Your task to perform on an android device: turn on the 12-hour format for clock Image 0: 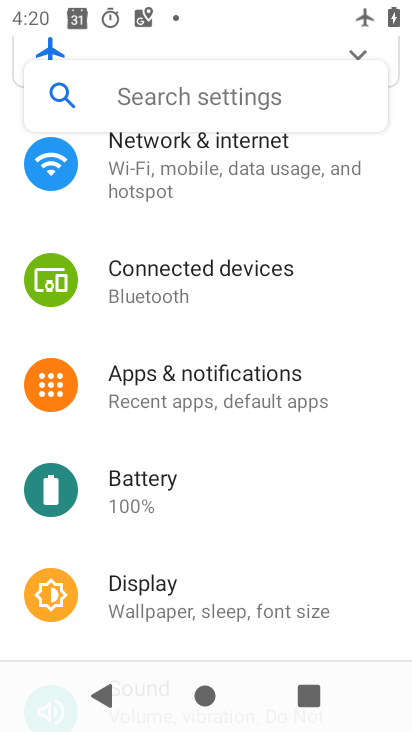
Step 0: press back button
Your task to perform on an android device: turn on the 12-hour format for clock Image 1: 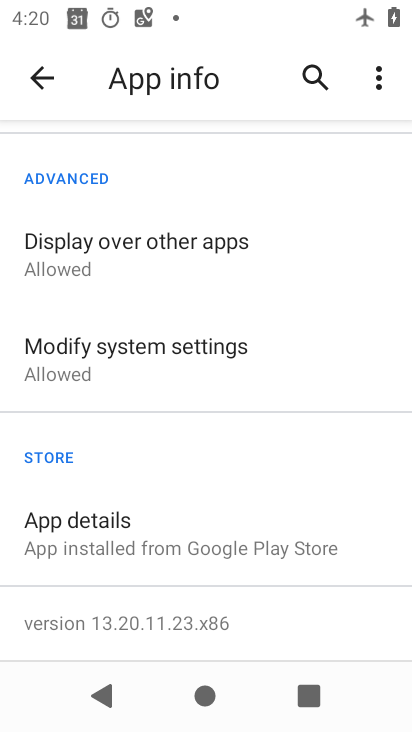
Step 1: press back button
Your task to perform on an android device: turn on the 12-hour format for clock Image 2: 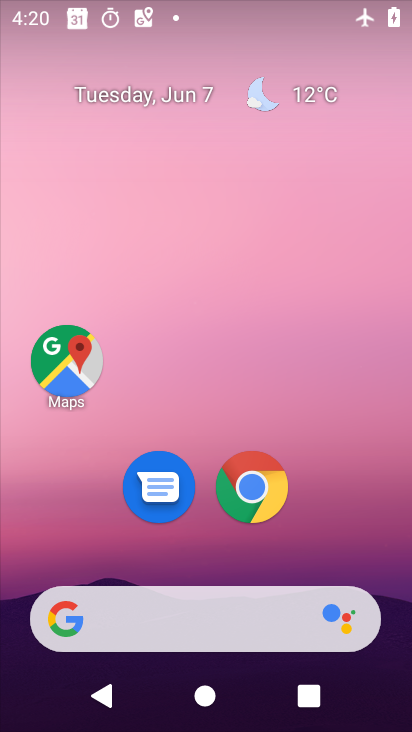
Step 2: drag from (218, 476) to (279, 0)
Your task to perform on an android device: turn on the 12-hour format for clock Image 3: 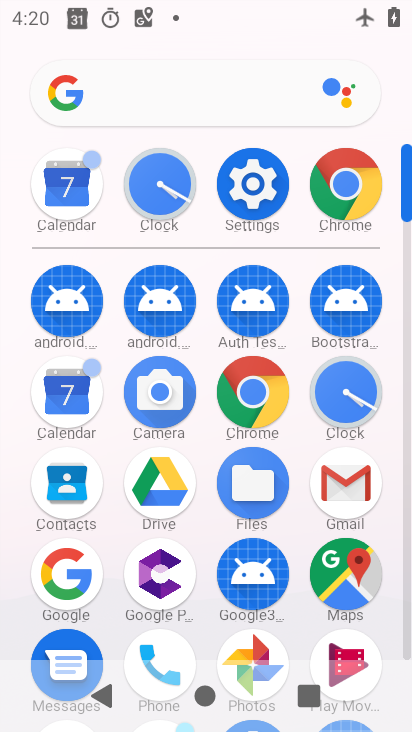
Step 3: click (329, 380)
Your task to perform on an android device: turn on the 12-hour format for clock Image 4: 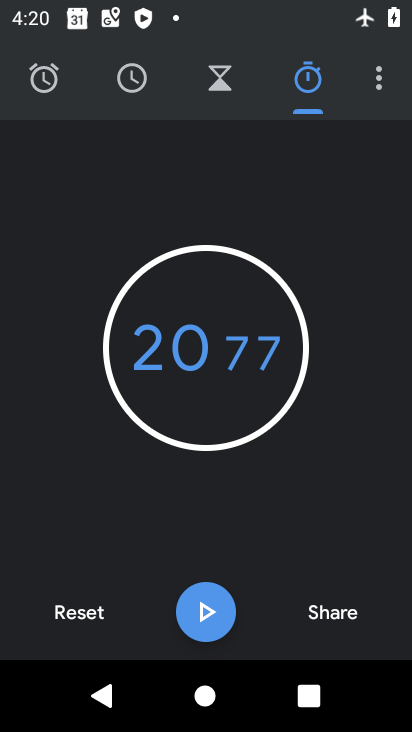
Step 4: click (391, 77)
Your task to perform on an android device: turn on the 12-hour format for clock Image 5: 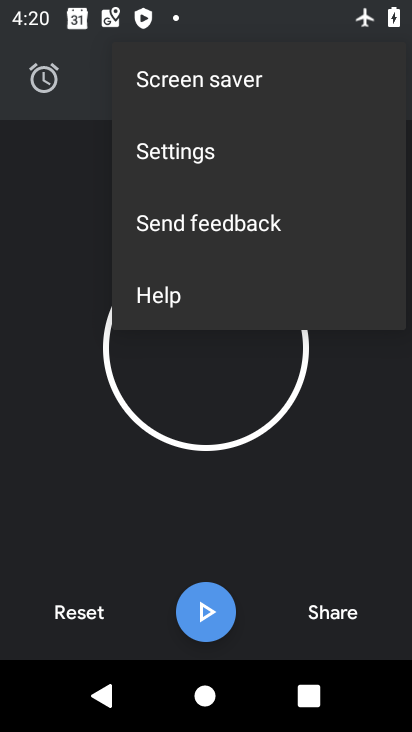
Step 5: click (224, 159)
Your task to perform on an android device: turn on the 12-hour format for clock Image 6: 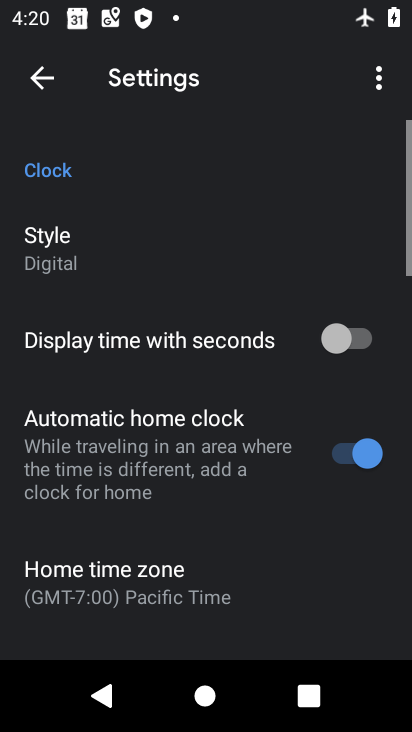
Step 6: drag from (123, 576) to (190, 116)
Your task to perform on an android device: turn on the 12-hour format for clock Image 7: 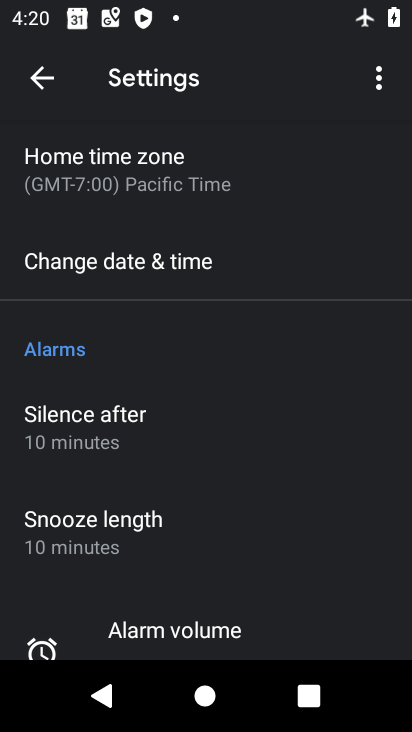
Step 7: click (164, 250)
Your task to perform on an android device: turn on the 12-hour format for clock Image 8: 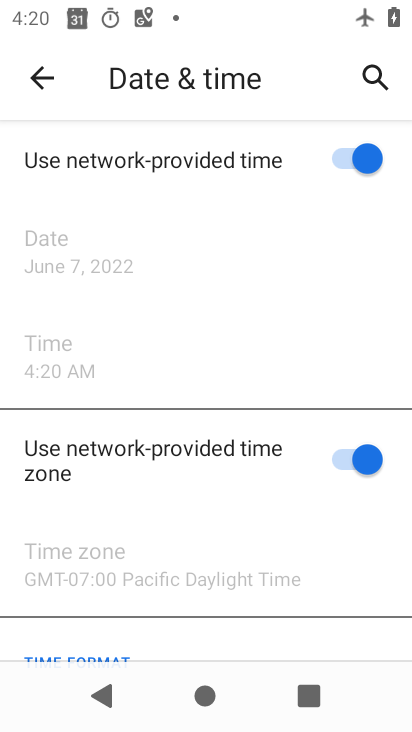
Step 8: task complete